Your task to perform on an android device: open chrome privacy settings Image 0: 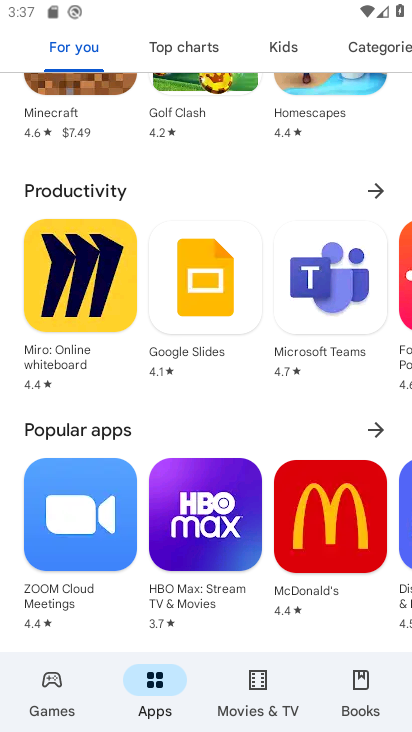
Step 0: press home button
Your task to perform on an android device: open chrome privacy settings Image 1: 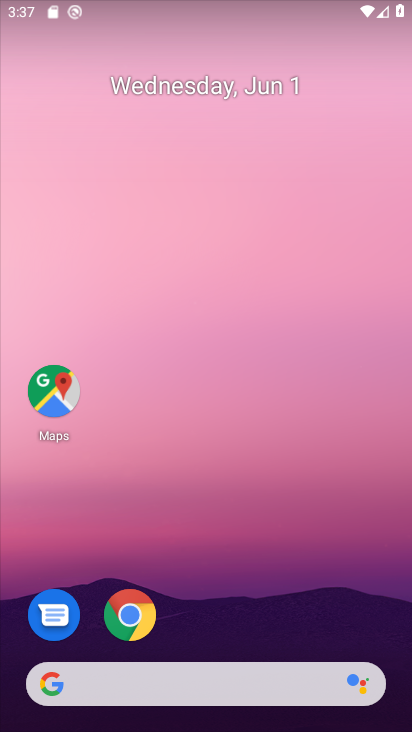
Step 1: drag from (263, 592) to (246, 216)
Your task to perform on an android device: open chrome privacy settings Image 2: 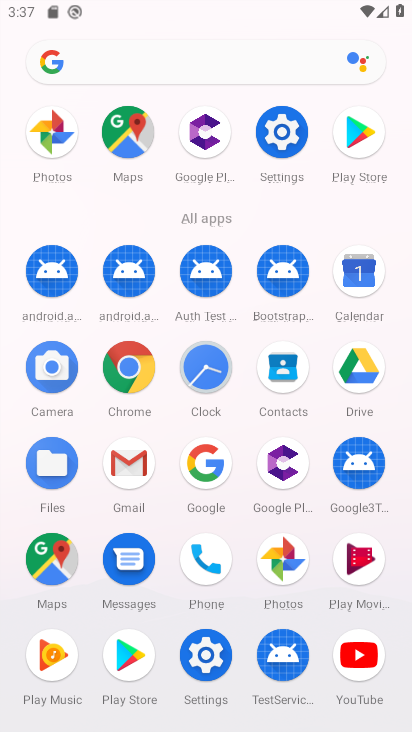
Step 2: click (282, 136)
Your task to perform on an android device: open chrome privacy settings Image 3: 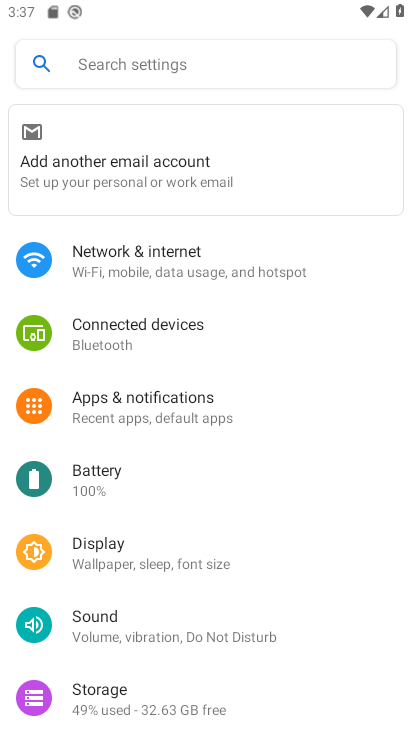
Step 3: drag from (260, 593) to (270, 220)
Your task to perform on an android device: open chrome privacy settings Image 4: 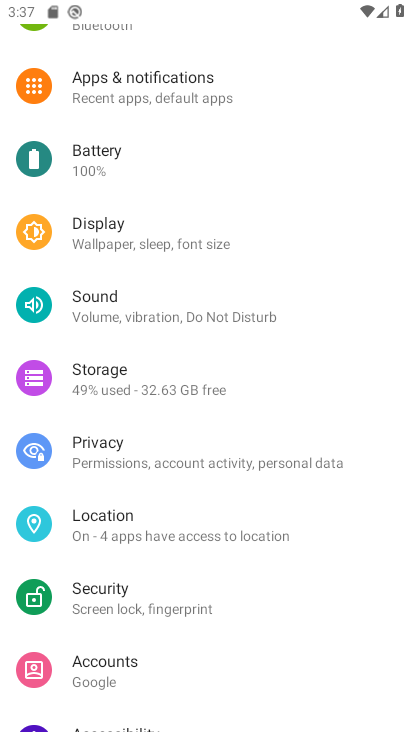
Step 4: press home button
Your task to perform on an android device: open chrome privacy settings Image 5: 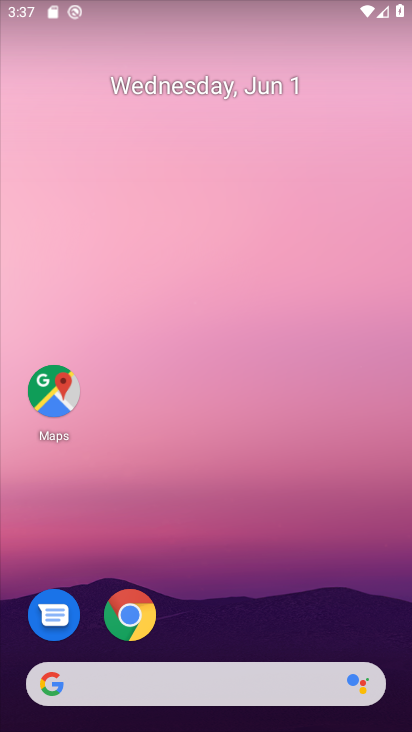
Step 5: click (136, 613)
Your task to perform on an android device: open chrome privacy settings Image 6: 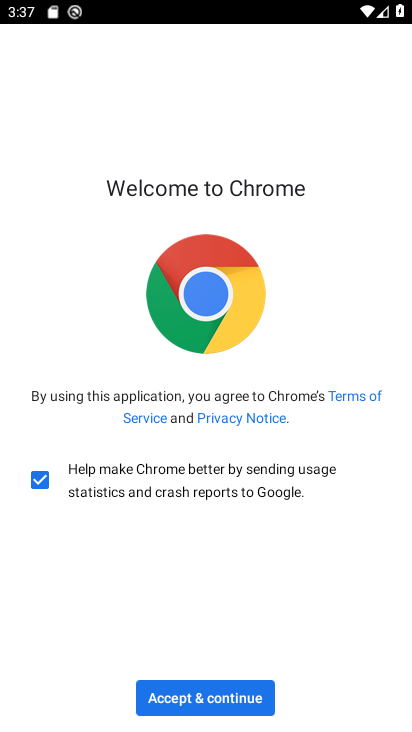
Step 6: click (209, 694)
Your task to perform on an android device: open chrome privacy settings Image 7: 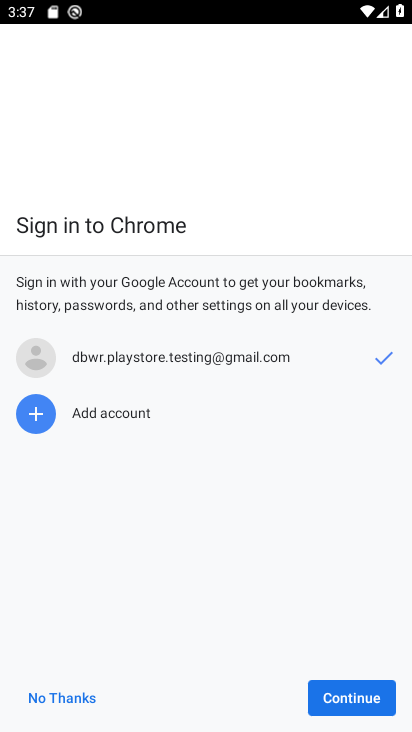
Step 7: click (317, 695)
Your task to perform on an android device: open chrome privacy settings Image 8: 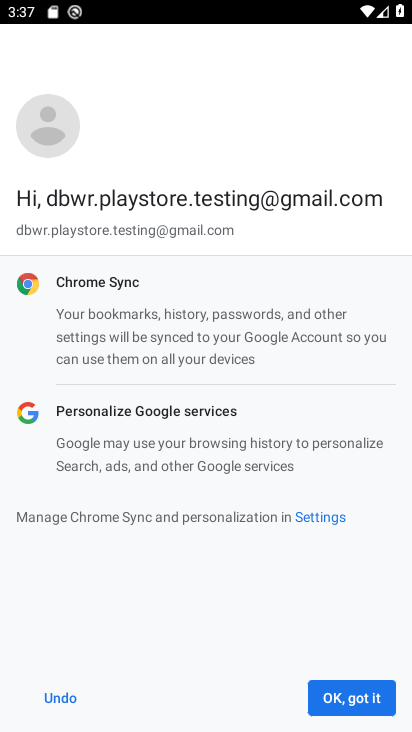
Step 8: click (336, 707)
Your task to perform on an android device: open chrome privacy settings Image 9: 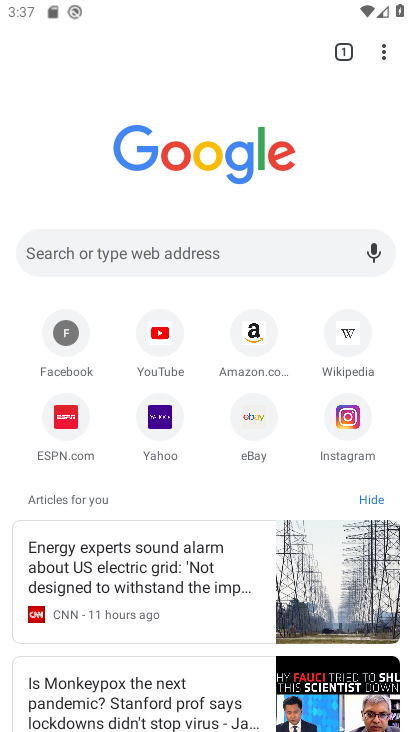
Step 9: drag from (392, 49) to (249, 449)
Your task to perform on an android device: open chrome privacy settings Image 10: 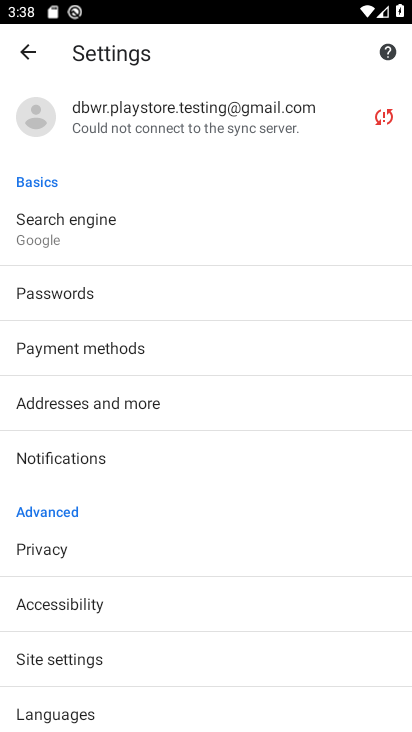
Step 10: click (54, 546)
Your task to perform on an android device: open chrome privacy settings Image 11: 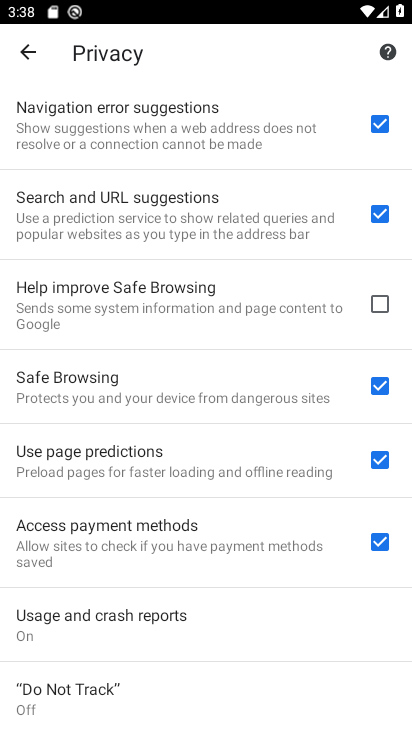
Step 11: task complete